Your task to perform on an android device: turn off translation in the chrome app Image 0: 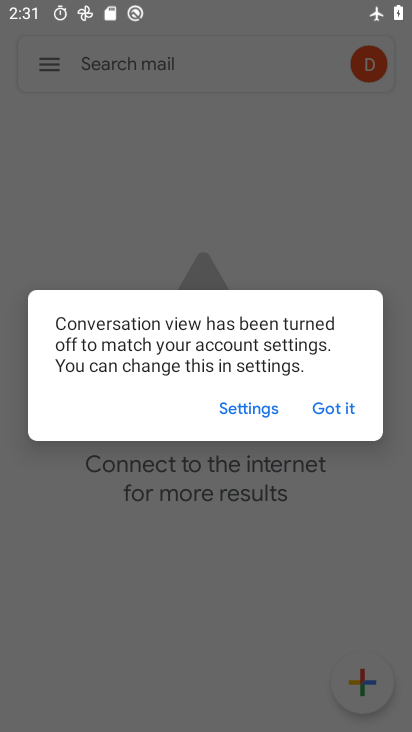
Step 0: press home button
Your task to perform on an android device: turn off translation in the chrome app Image 1: 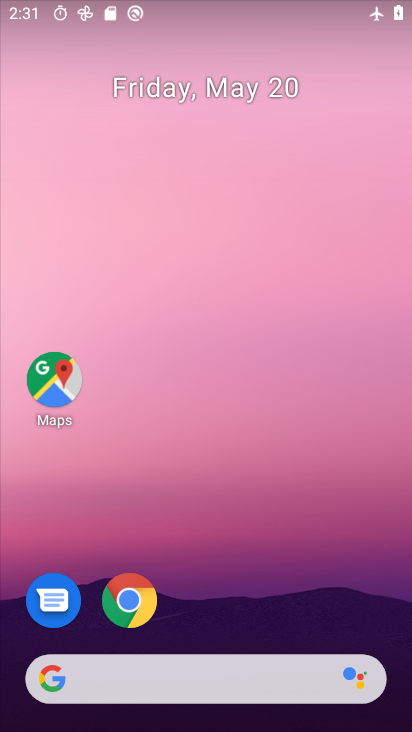
Step 1: click (122, 604)
Your task to perform on an android device: turn off translation in the chrome app Image 2: 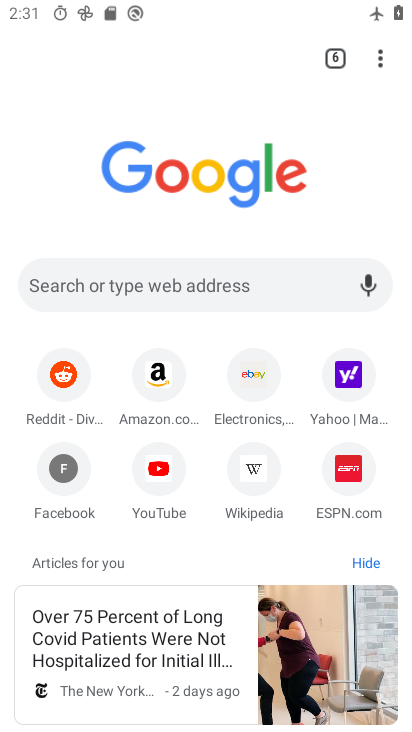
Step 2: click (376, 60)
Your task to perform on an android device: turn off translation in the chrome app Image 3: 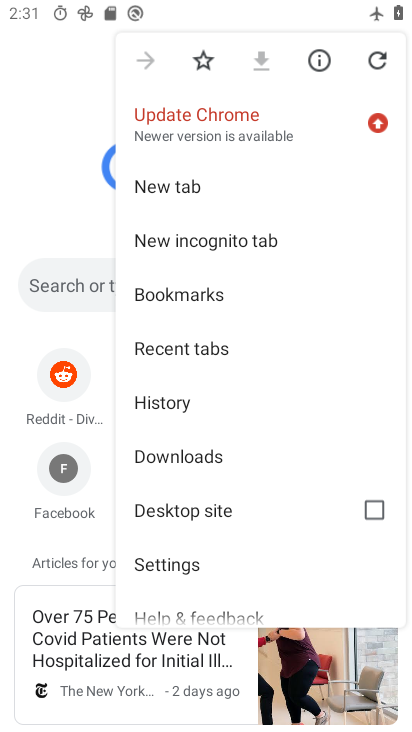
Step 3: click (207, 549)
Your task to perform on an android device: turn off translation in the chrome app Image 4: 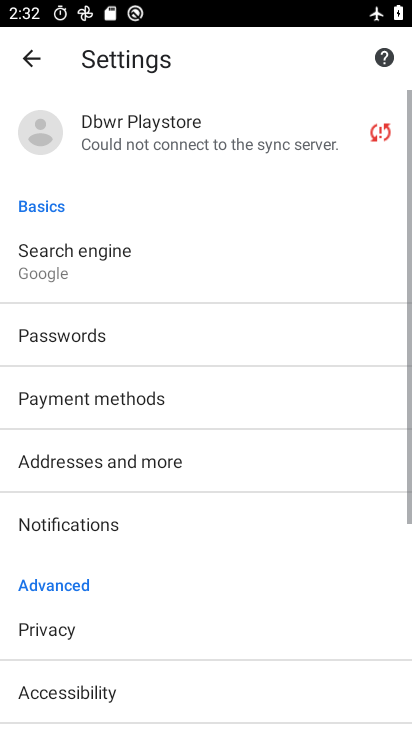
Step 4: drag from (206, 560) to (195, 198)
Your task to perform on an android device: turn off translation in the chrome app Image 5: 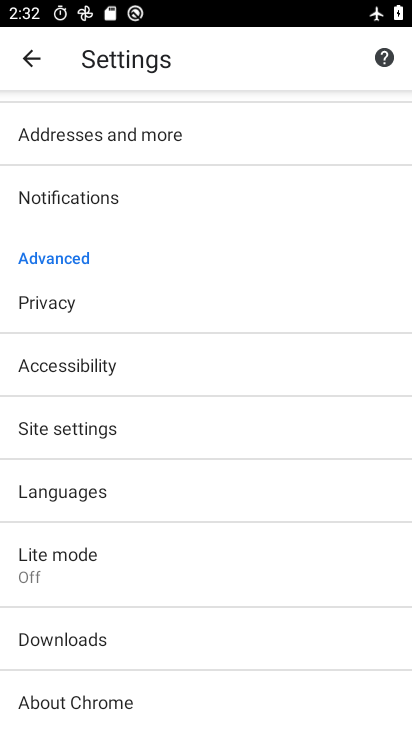
Step 5: click (146, 507)
Your task to perform on an android device: turn off translation in the chrome app Image 6: 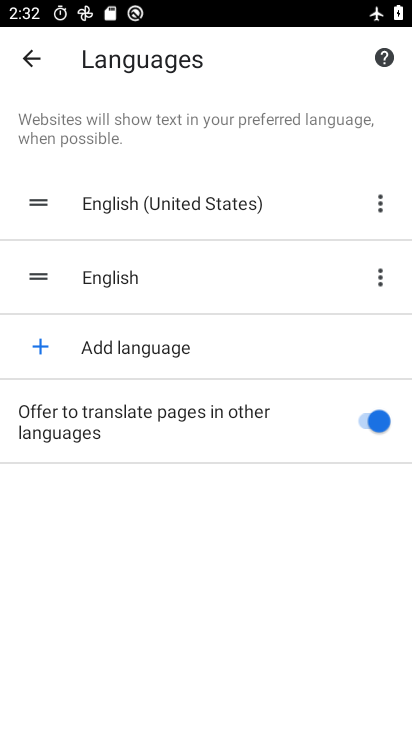
Step 6: click (371, 417)
Your task to perform on an android device: turn off translation in the chrome app Image 7: 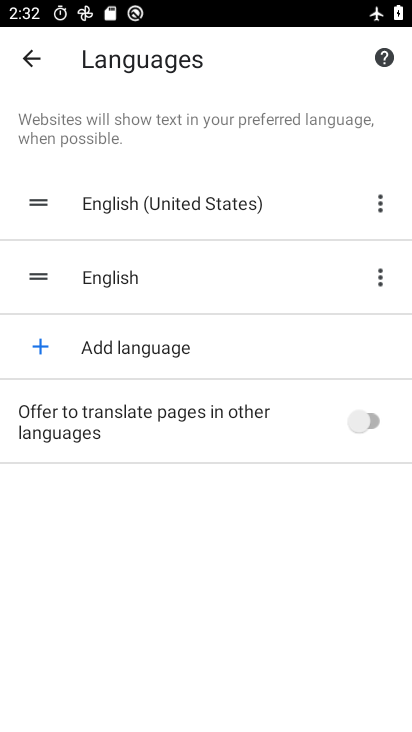
Step 7: task complete